Your task to perform on an android device: Open calendar and show me the fourth week of next month Image 0: 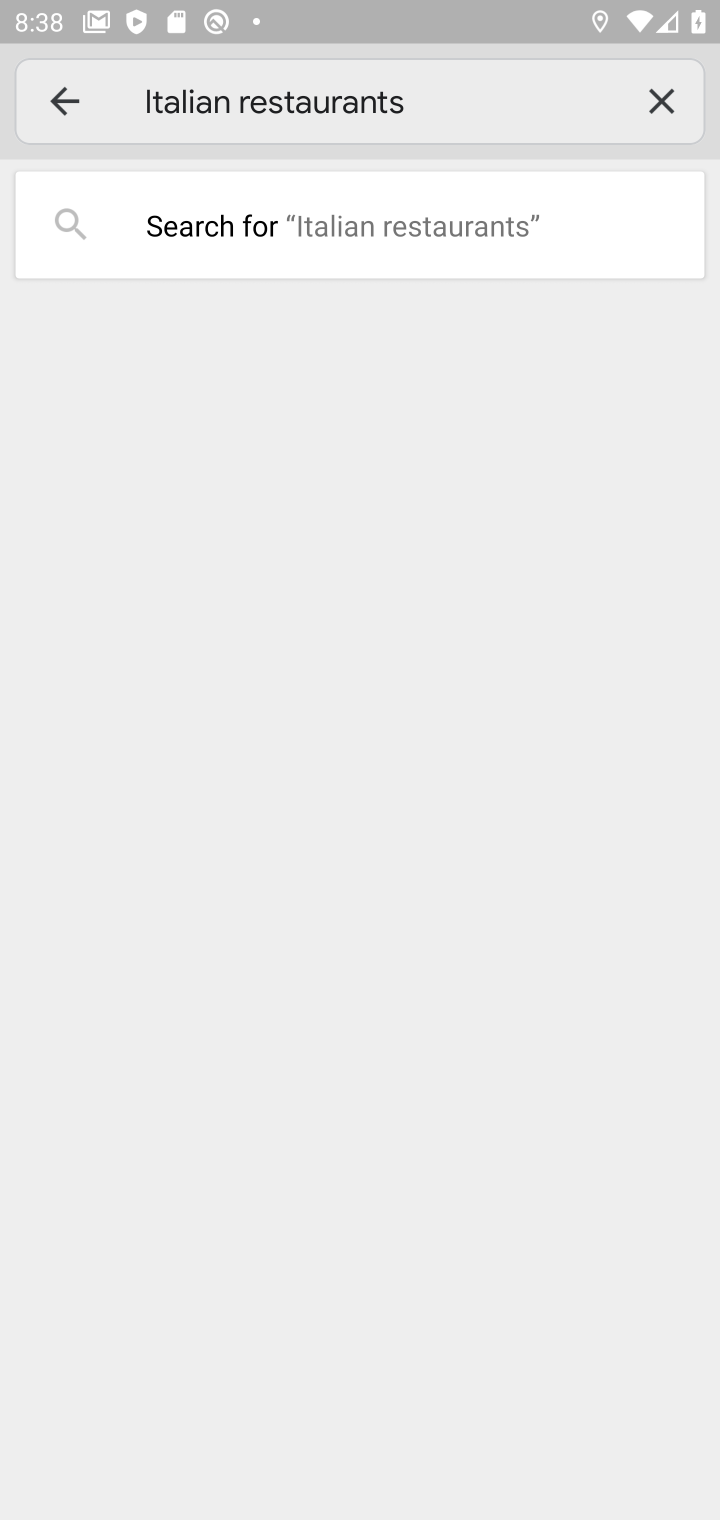
Step 0: press home button
Your task to perform on an android device: Open calendar and show me the fourth week of next month Image 1: 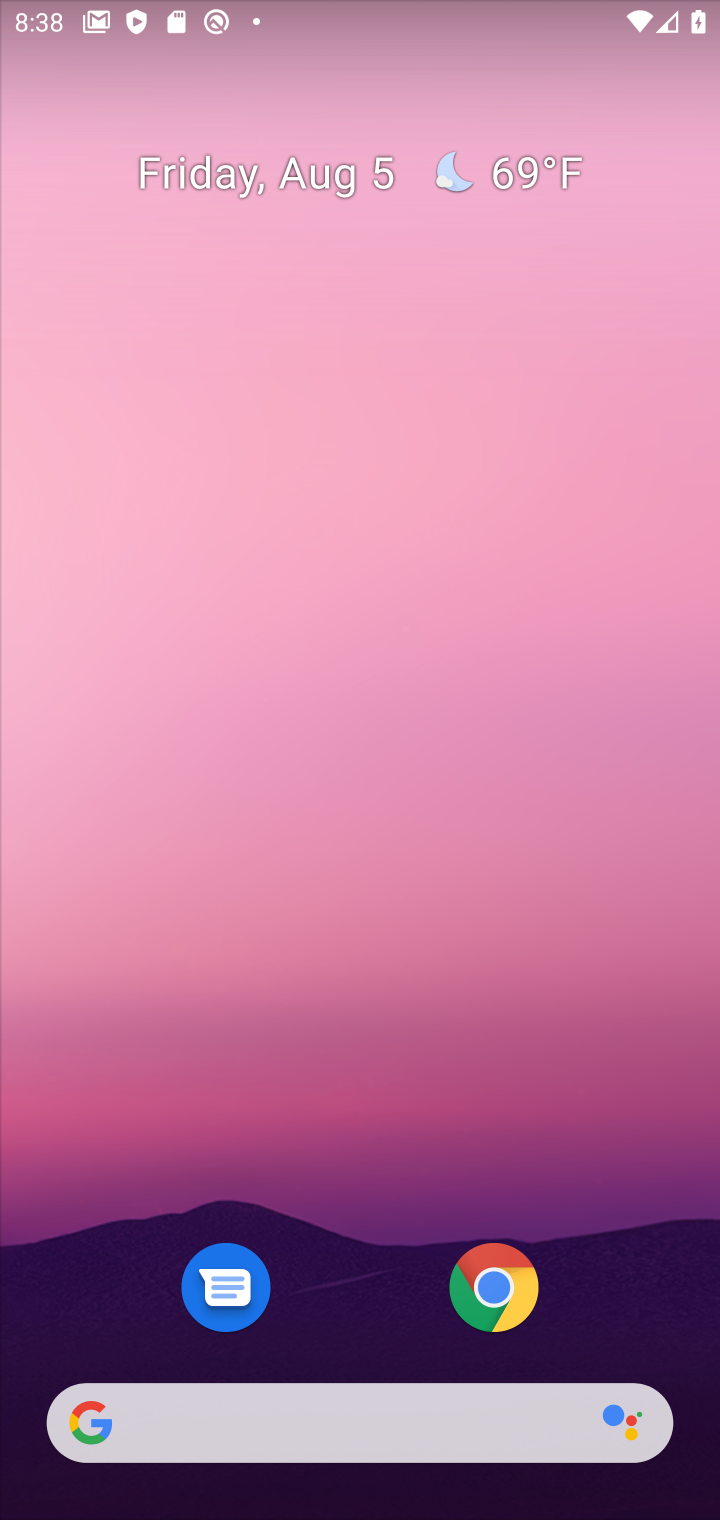
Step 1: drag from (364, 1229) to (366, 275)
Your task to perform on an android device: Open calendar and show me the fourth week of next month Image 2: 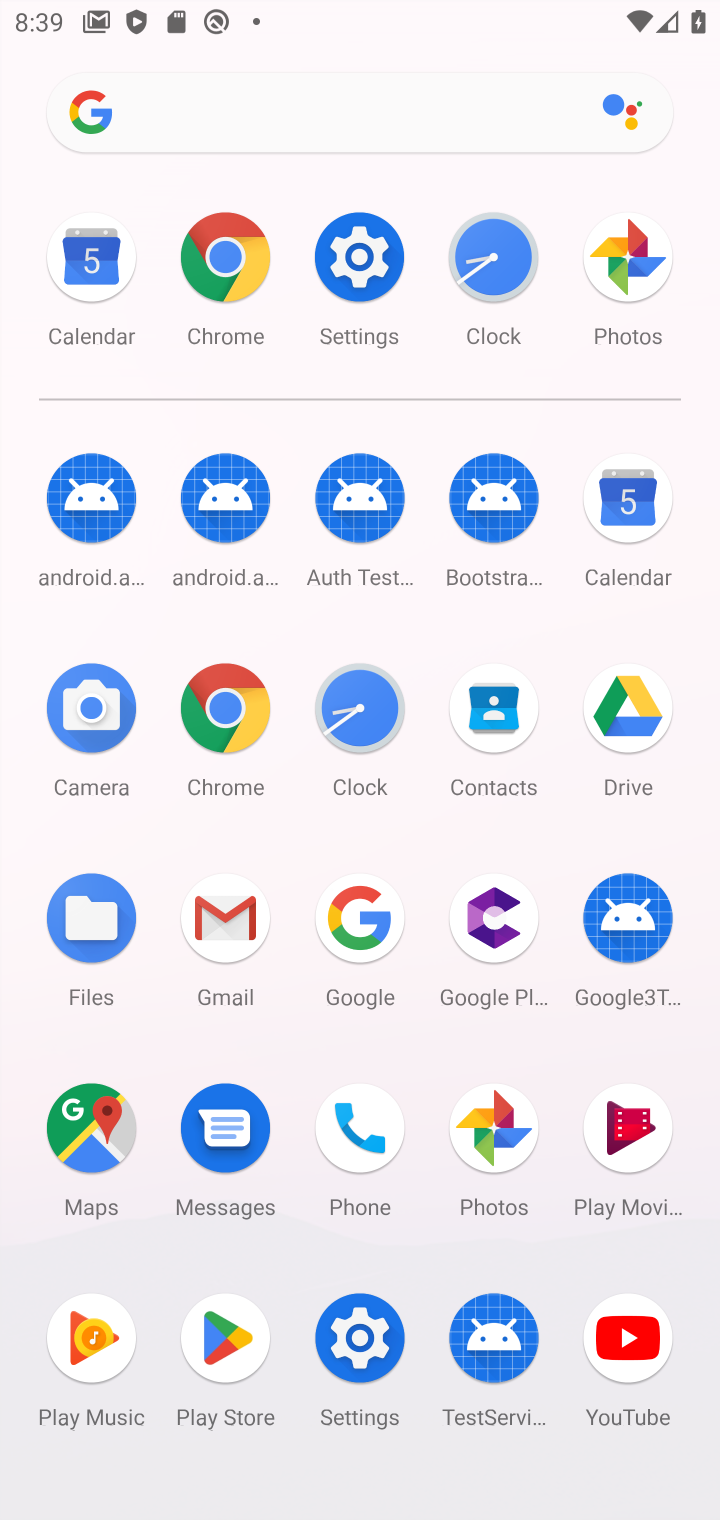
Step 2: click (633, 498)
Your task to perform on an android device: Open calendar and show me the fourth week of next month Image 3: 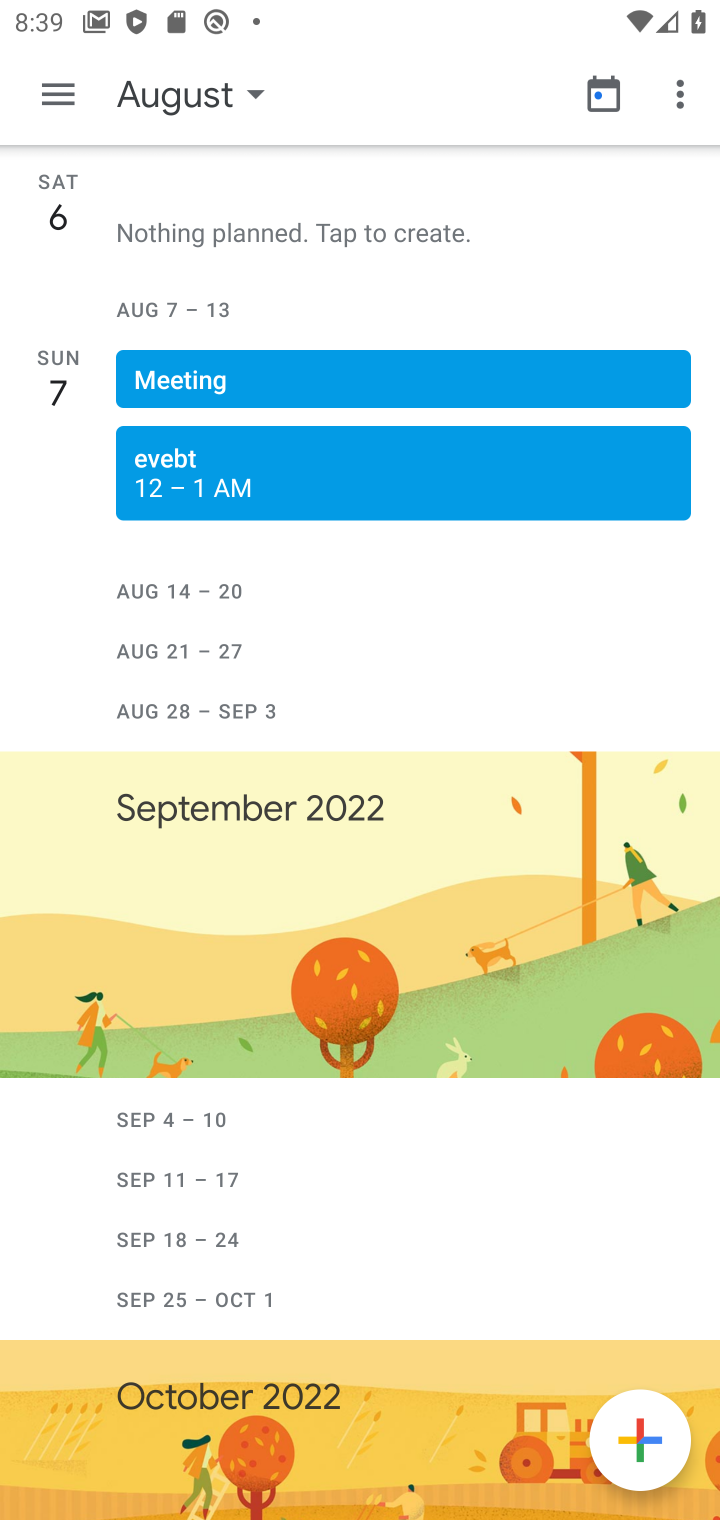
Step 3: click (259, 94)
Your task to perform on an android device: Open calendar and show me the fourth week of next month Image 4: 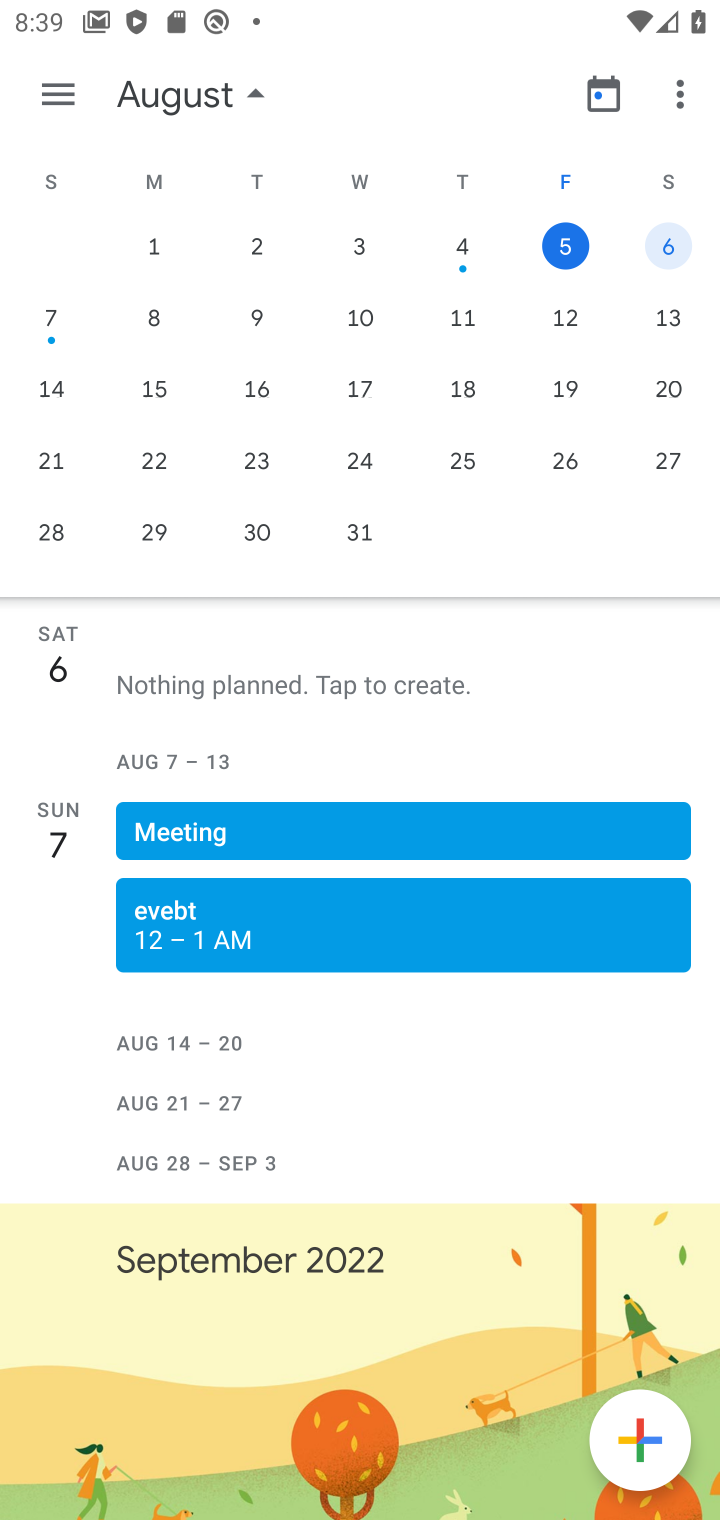
Step 4: drag from (605, 434) to (289, 462)
Your task to perform on an android device: Open calendar and show me the fourth week of next month Image 5: 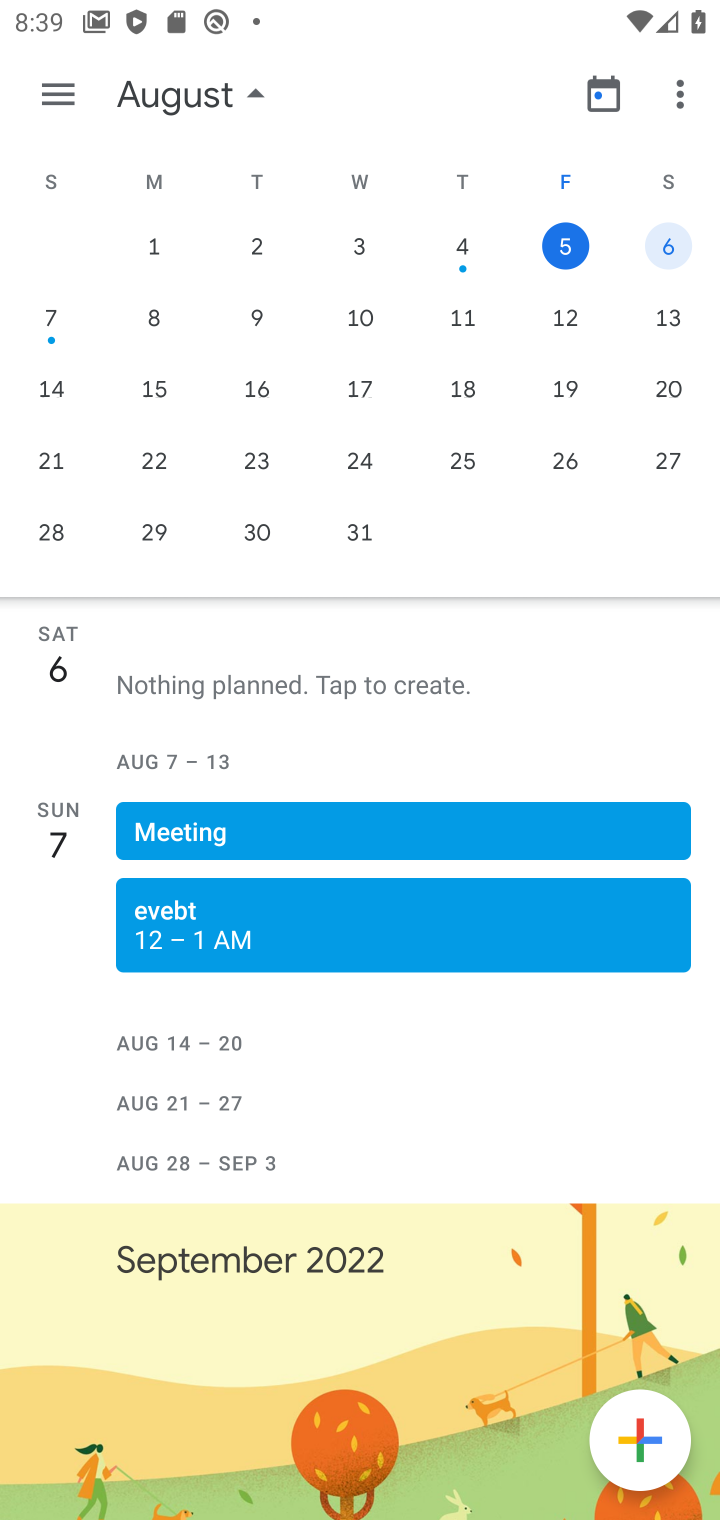
Step 5: drag from (419, 380) to (115, 369)
Your task to perform on an android device: Open calendar and show me the fourth week of next month Image 6: 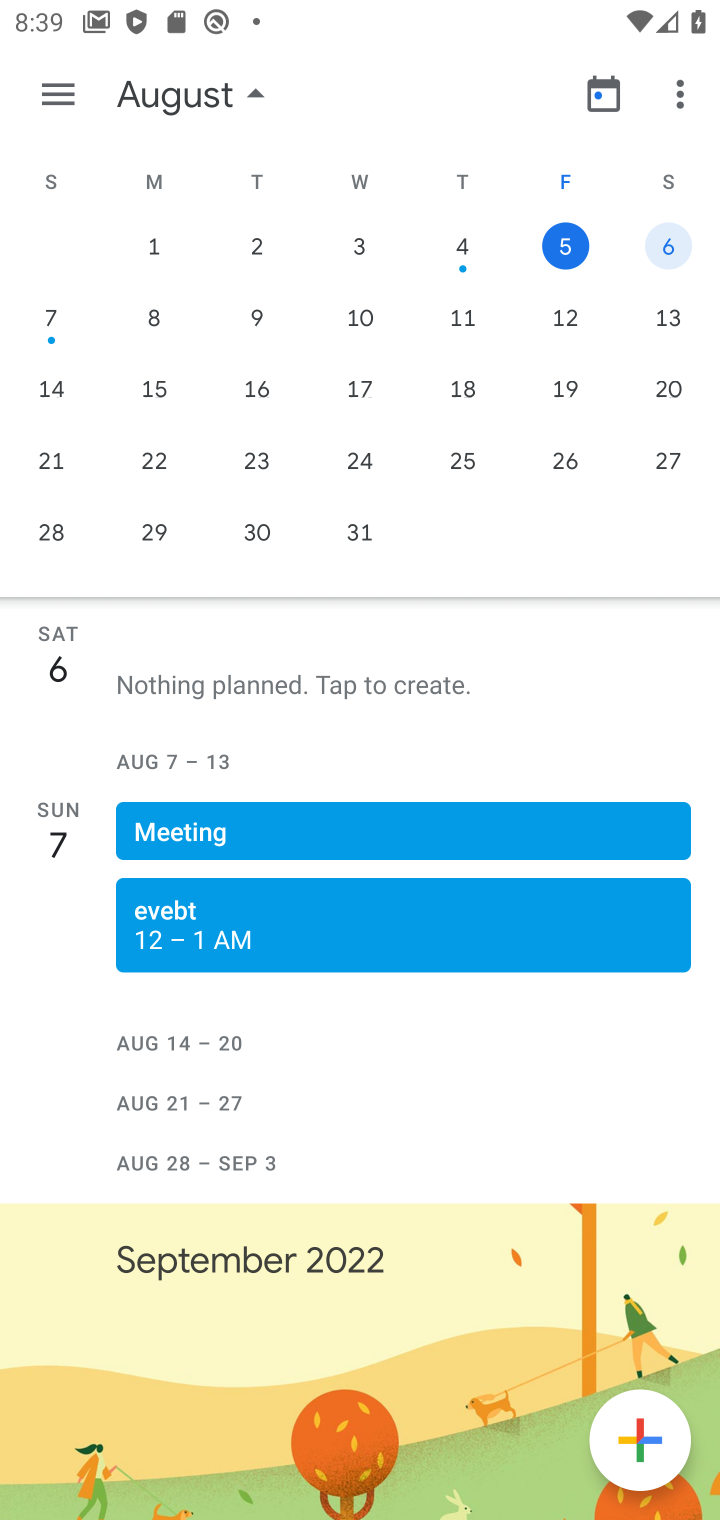
Step 6: drag from (586, 375) to (18, 348)
Your task to perform on an android device: Open calendar and show me the fourth week of next month Image 7: 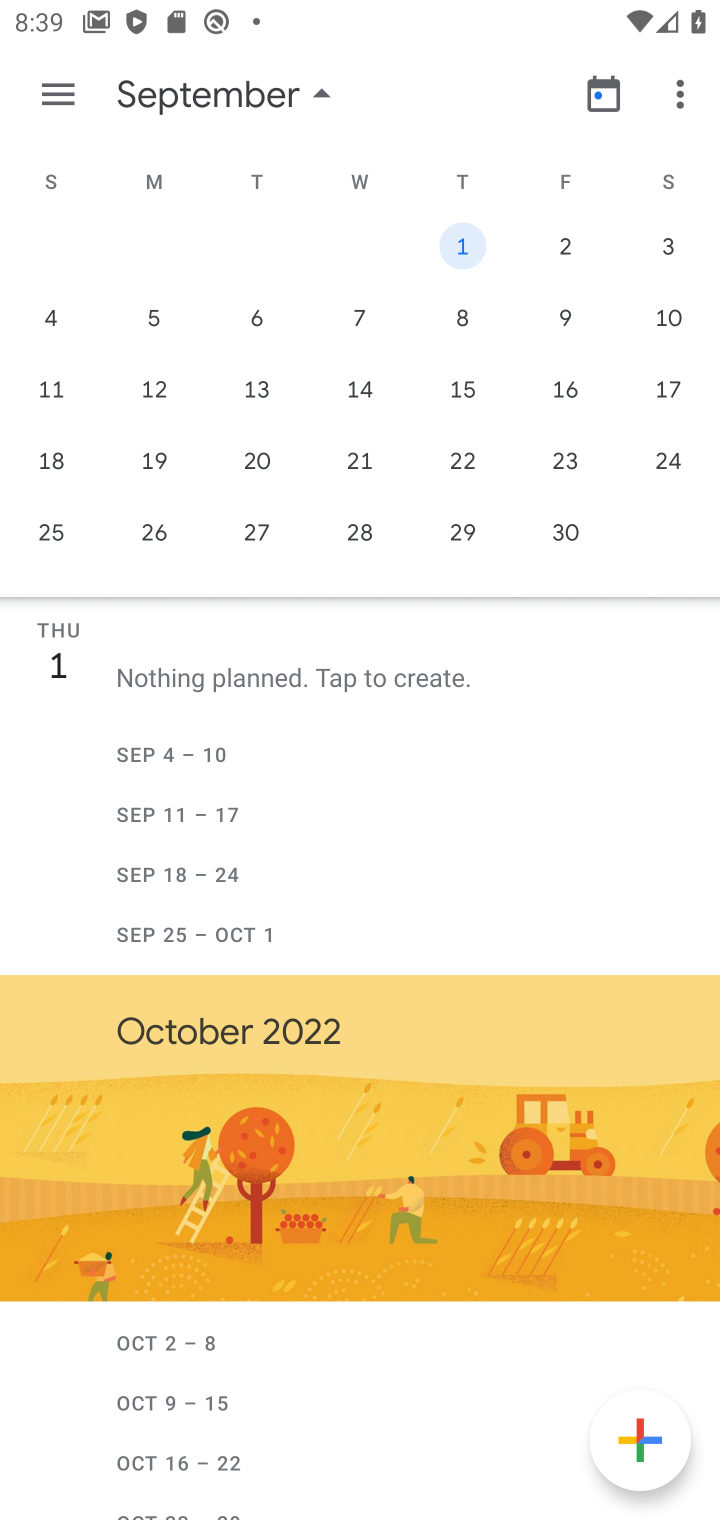
Step 7: click (152, 519)
Your task to perform on an android device: Open calendar and show me the fourth week of next month Image 8: 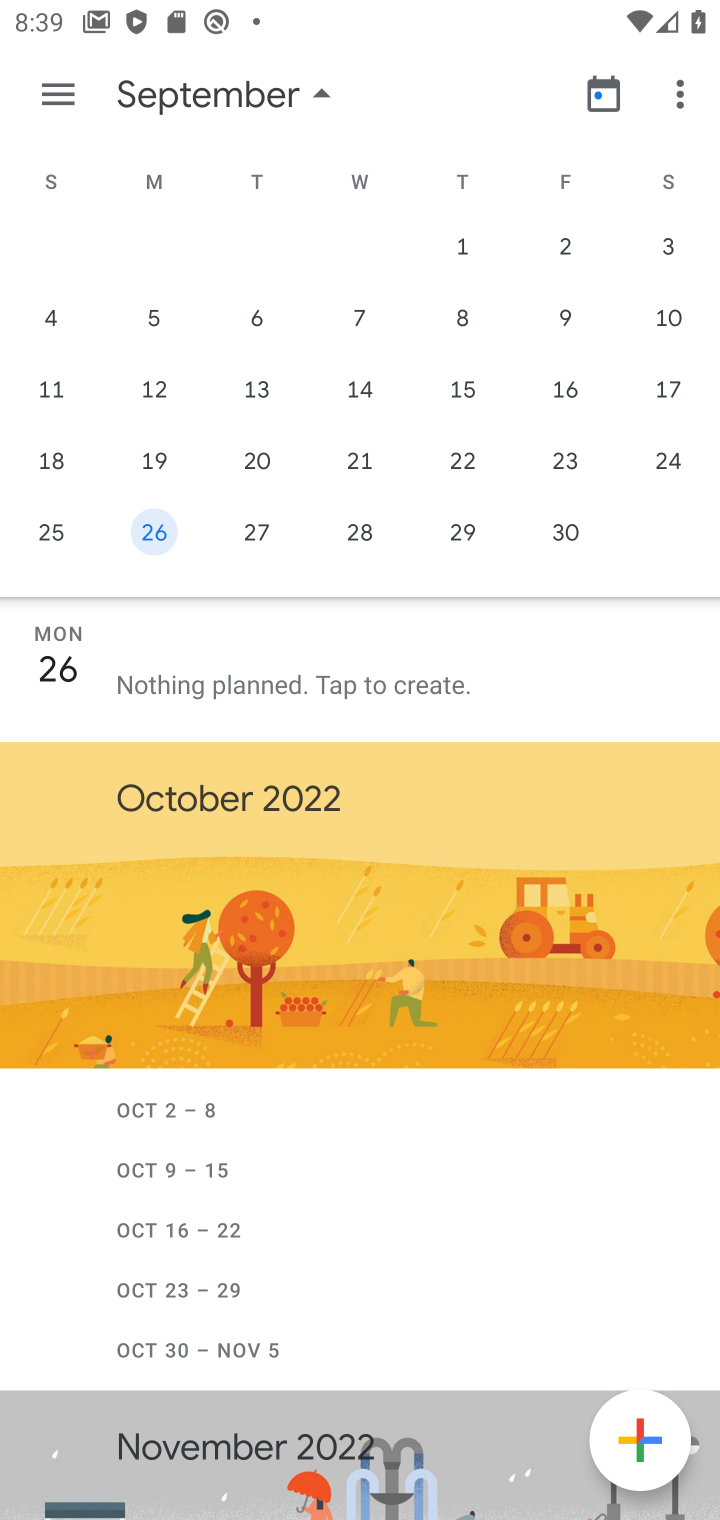
Step 8: click (66, 97)
Your task to perform on an android device: Open calendar and show me the fourth week of next month Image 9: 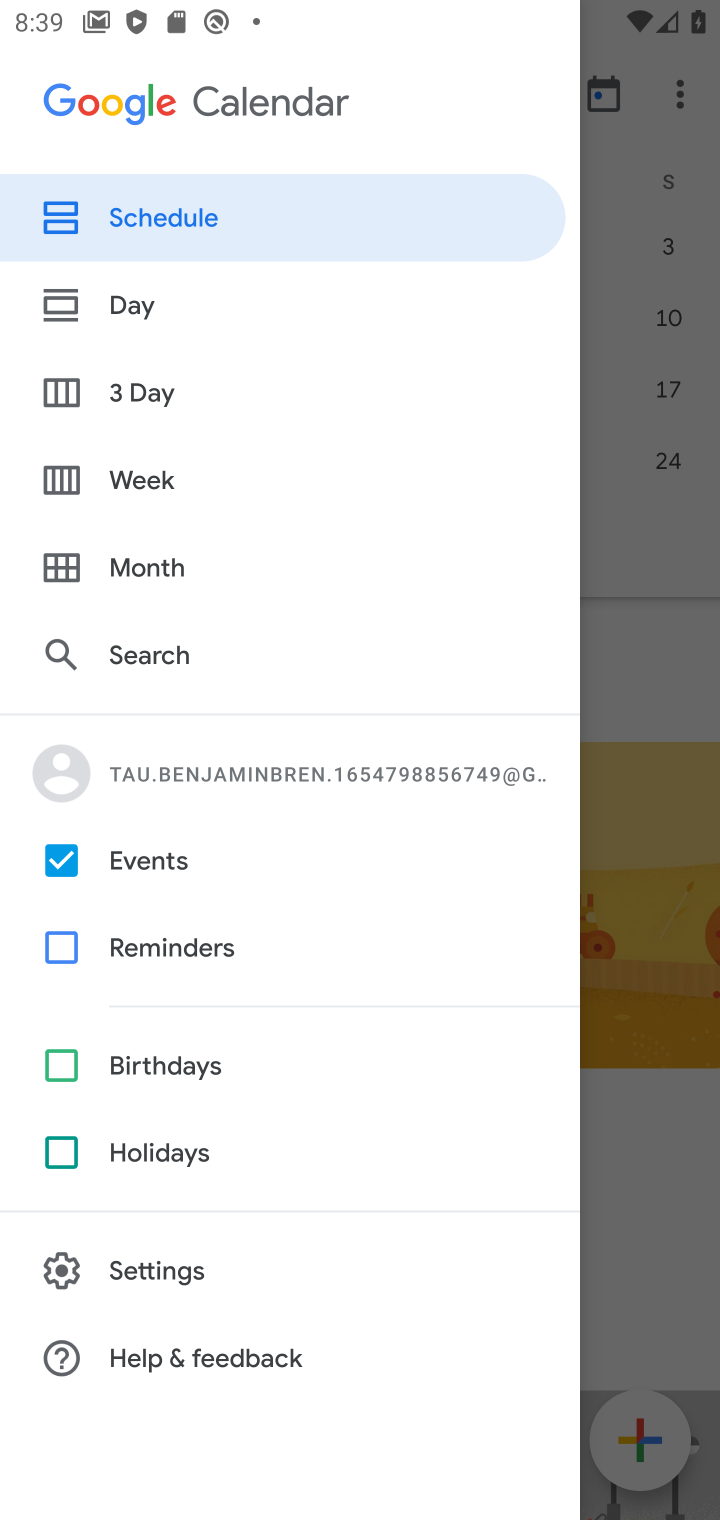
Step 9: click (169, 473)
Your task to perform on an android device: Open calendar and show me the fourth week of next month Image 10: 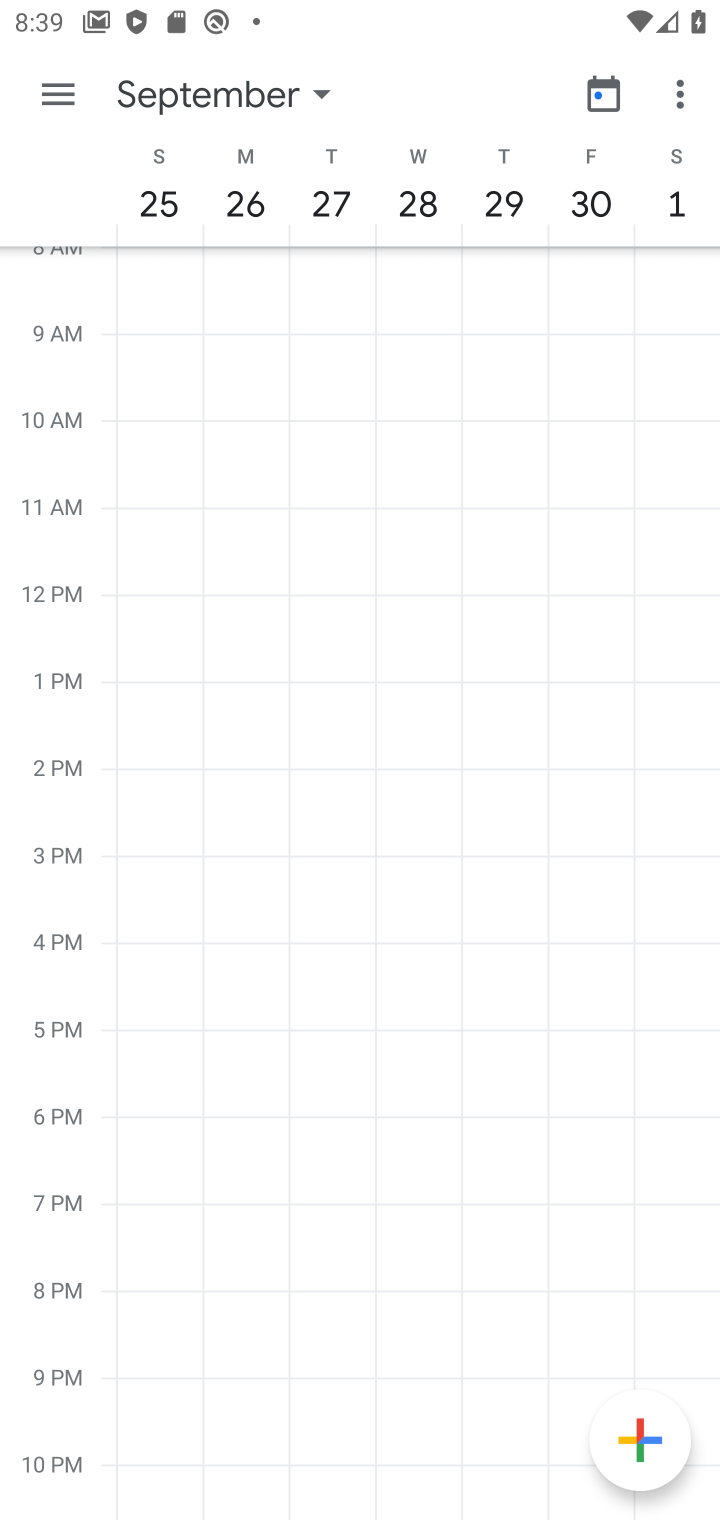
Step 10: task complete